Your task to perform on an android device: open the mobile data screen to see how much data has been used Image 0: 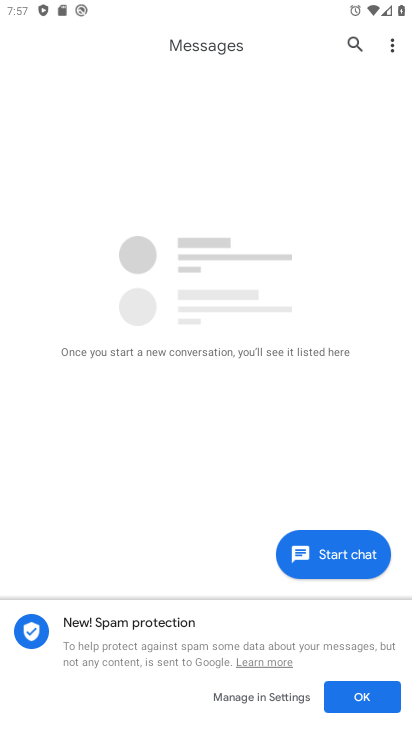
Step 0: press home button
Your task to perform on an android device: open the mobile data screen to see how much data has been used Image 1: 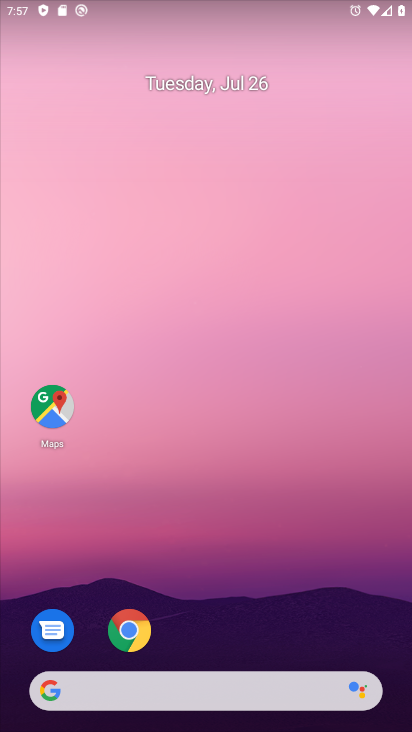
Step 1: drag from (173, 697) to (374, 0)
Your task to perform on an android device: open the mobile data screen to see how much data has been used Image 2: 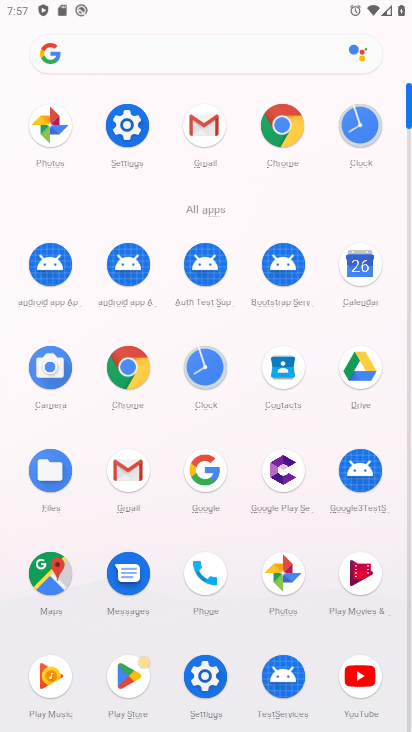
Step 2: click (127, 124)
Your task to perform on an android device: open the mobile data screen to see how much data has been used Image 3: 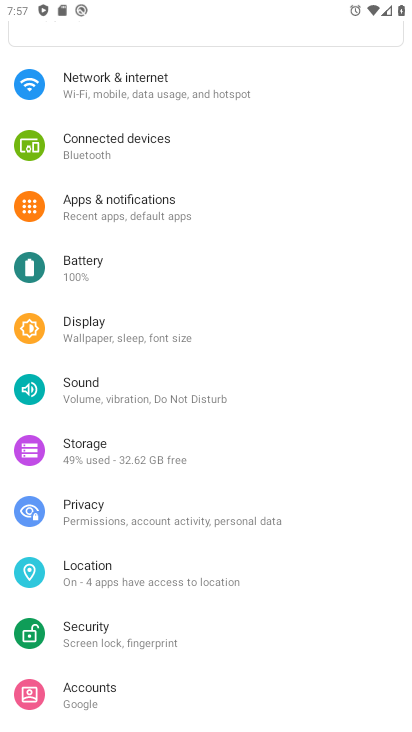
Step 3: click (153, 89)
Your task to perform on an android device: open the mobile data screen to see how much data has been used Image 4: 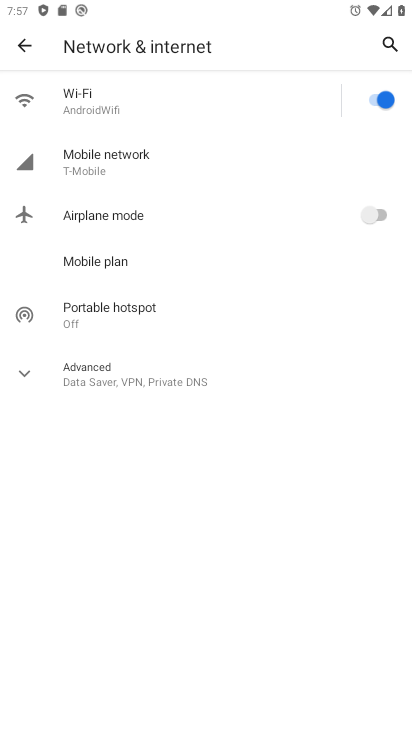
Step 4: click (133, 160)
Your task to perform on an android device: open the mobile data screen to see how much data has been used Image 5: 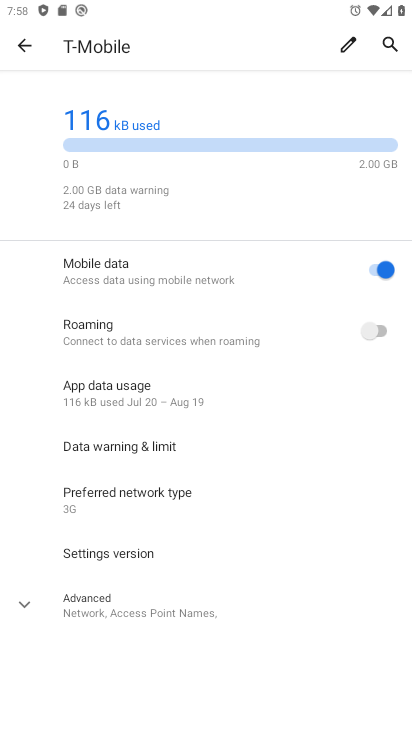
Step 5: task complete